Your task to perform on an android device: open chrome and create a bookmark for the current page Image 0: 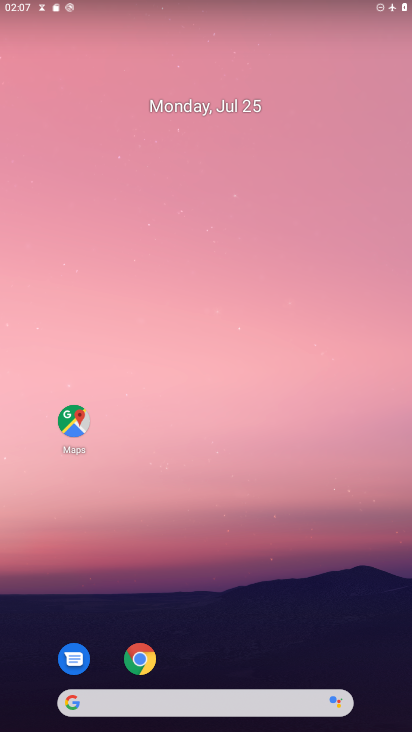
Step 0: drag from (198, 584) to (189, 260)
Your task to perform on an android device: open chrome and create a bookmark for the current page Image 1: 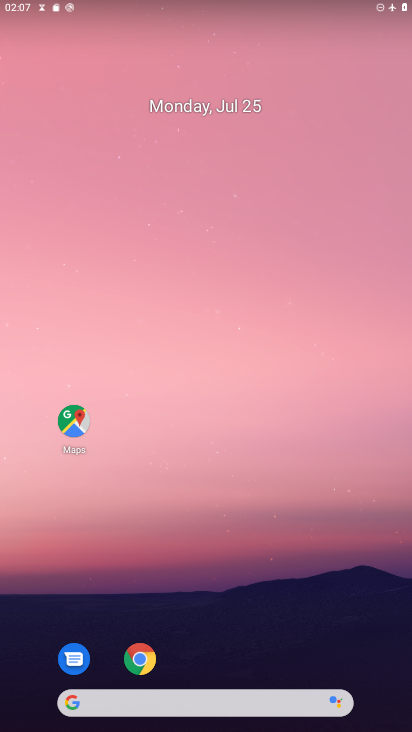
Step 1: drag from (218, 652) to (228, 217)
Your task to perform on an android device: open chrome and create a bookmark for the current page Image 2: 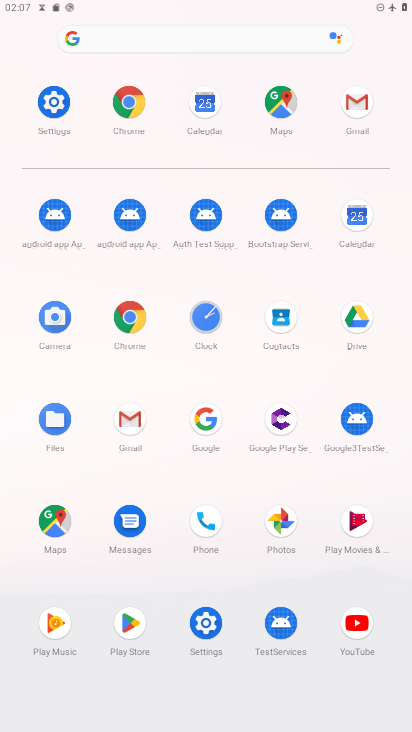
Step 2: click (134, 95)
Your task to perform on an android device: open chrome and create a bookmark for the current page Image 3: 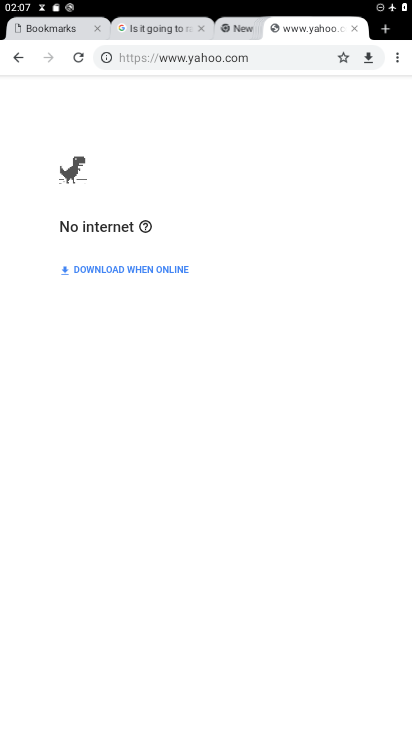
Step 3: click (343, 56)
Your task to perform on an android device: open chrome and create a bookmark for the current page Image 4: 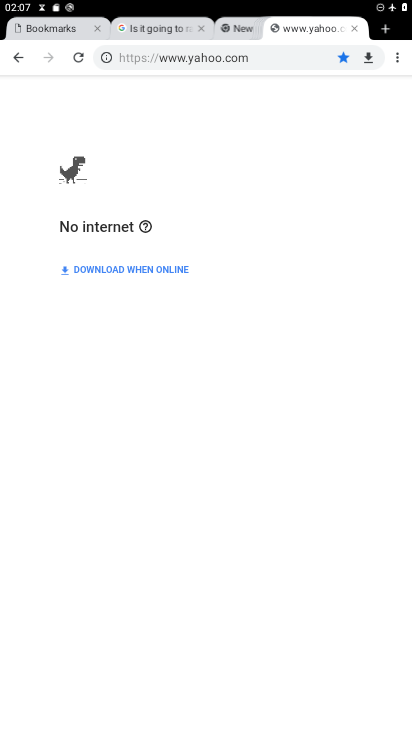
Step 4: task complete